Your task to perform on an android device: toggle wifi Image 0: 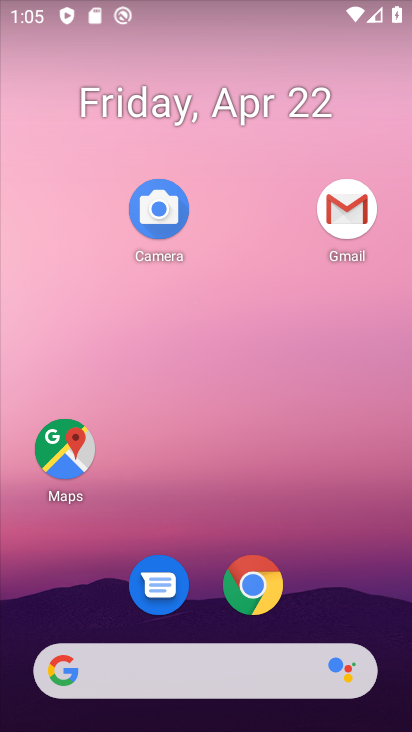
Step 0: drag from (344, 557) to (361, 98)
Your task to perform on an android device: toggle wifi Image 1: 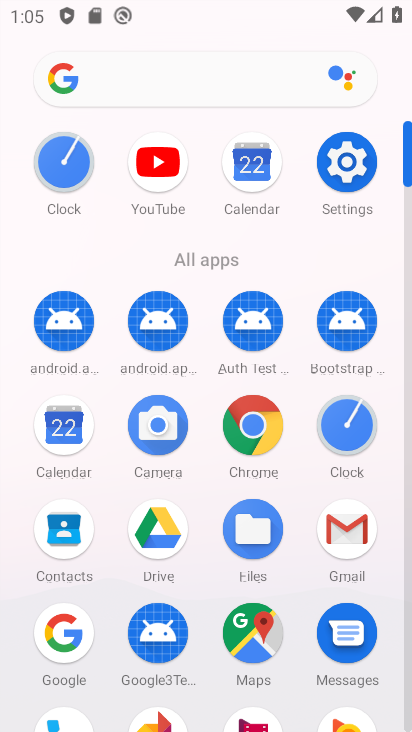
Step 1: click (353, 163)
Your task to perform on an android device: toggle wifi Image 2: 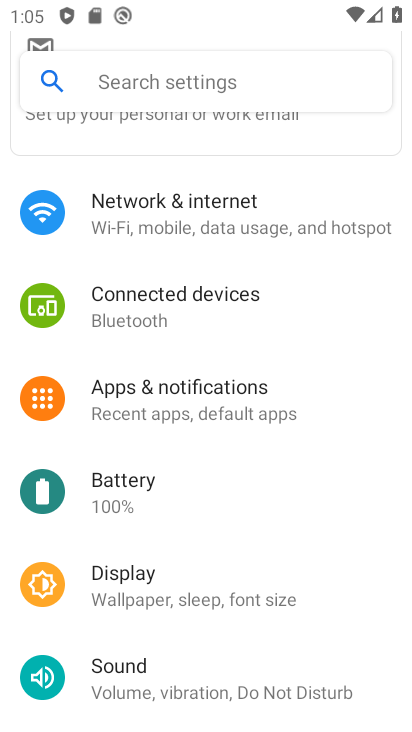
Step 2: click (302, 223)
Your task to perform on an android device: toggle wifi Image 3: 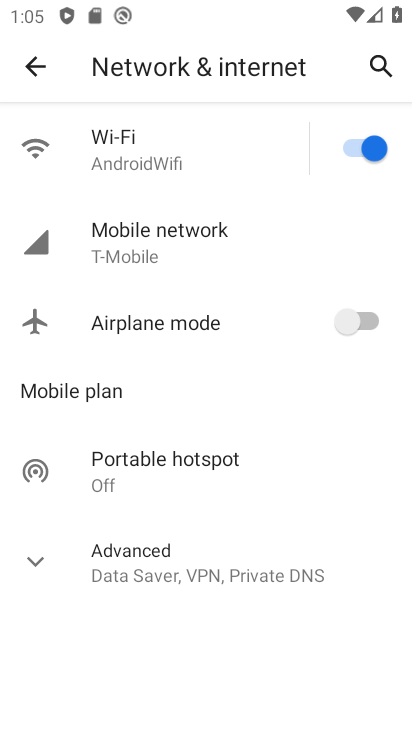
Step 3: click (355, 141)
Your task to perform on an android device: toggle wifi Image 4: 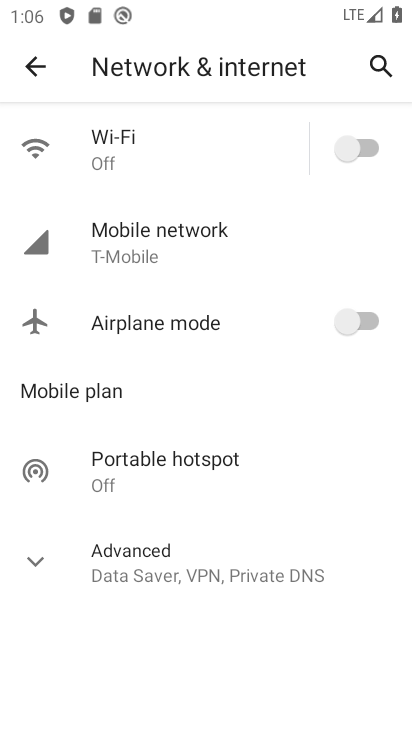
Step 4: task complete